Your task to perform on an android device: Go to internet settings Image 0: 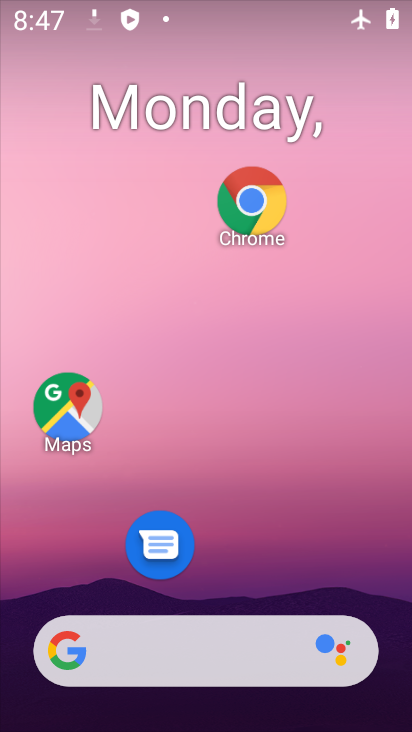
Step 0: drag from (231, 438) to (187, 119)
Your task to perform on an android device: Go to internet settings Image 1: 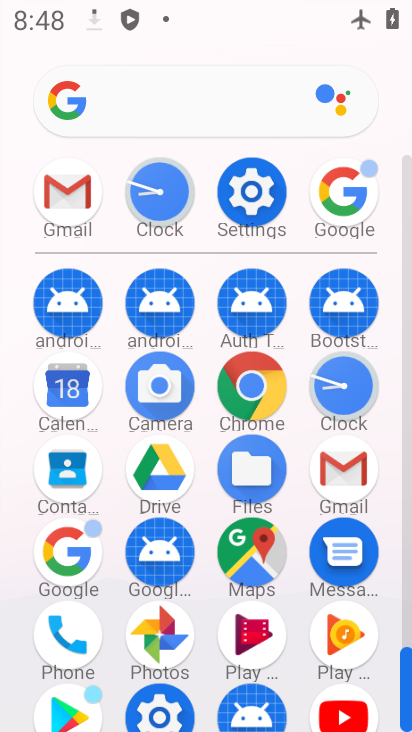
Step 1: click (265, 203)
Your task to perform on an android device: Go to internet settings Image 2: 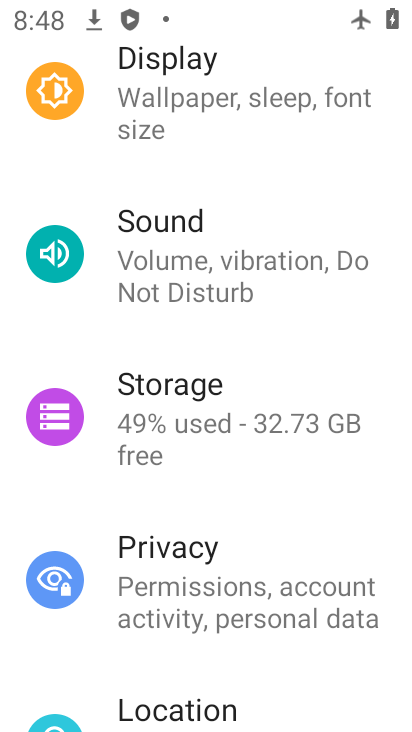
Step 2: drag from (252, 176) to (249, 470)
Your task to perform on an android device: Go to internet settings Image 3: 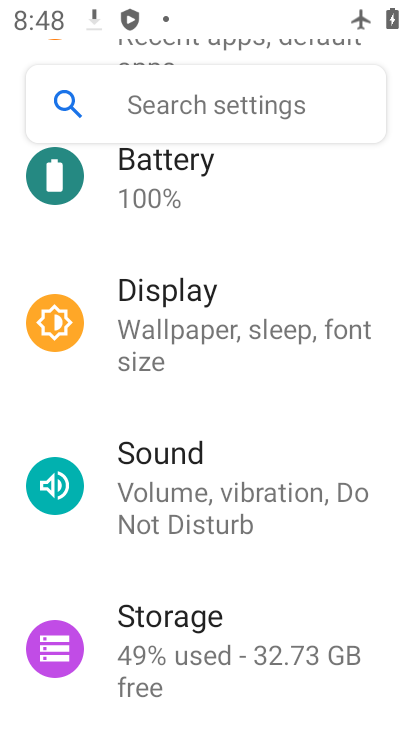
Step 3: drag from (263, 219) to (297, 496)
Your task to perform on an android device: Go to internet settings Image 4: 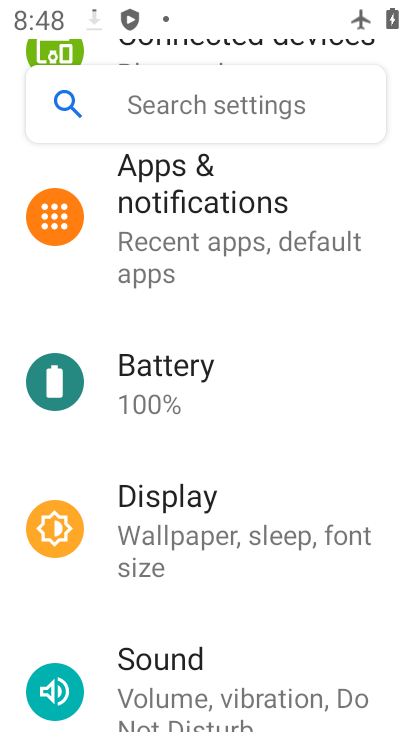
Step 4: drag from (313, 193) to (310, 526)
Your task to perform on an android device: Go to internet settings Image 5: 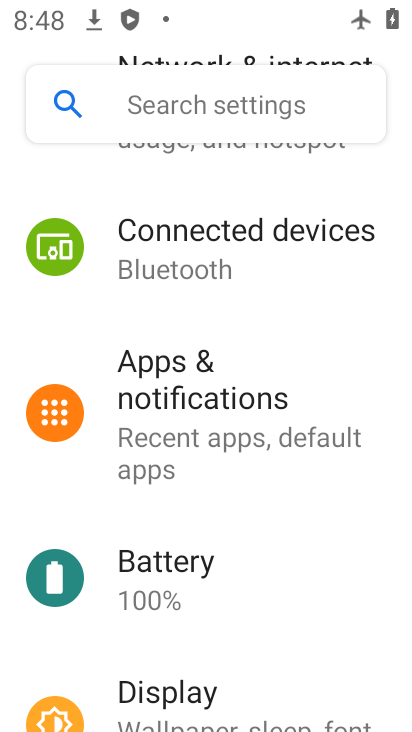
Step 5: drag from (291, 183) to (291, 456)
Your task to perform on an android device: Go to internet settings Image 6: 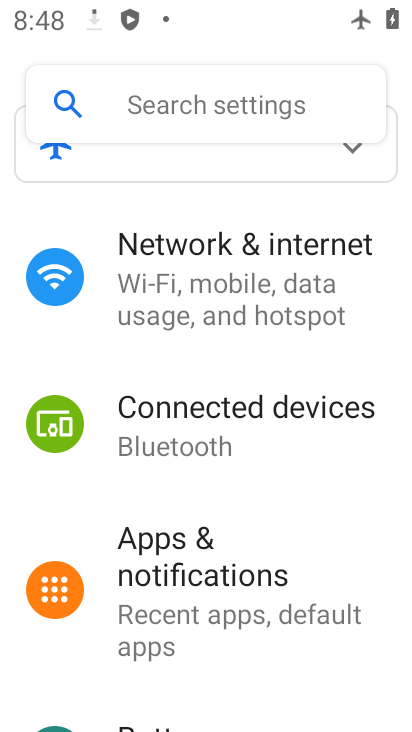
Step 6: click (272, 301)
Your task to perform on an android device: Go to internet settings Image 7: 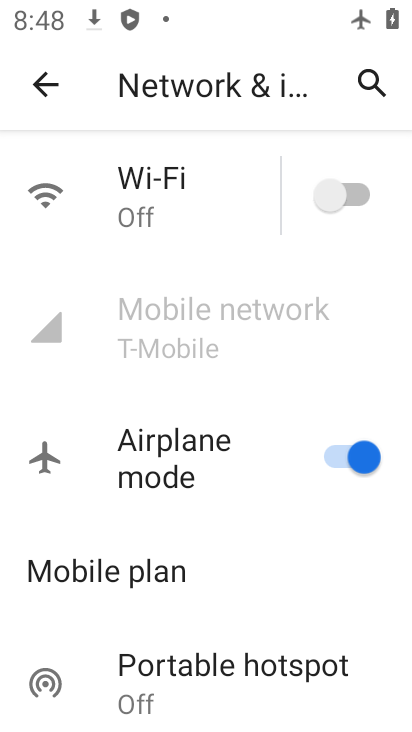
Step 7: task complete